Your task to perform on an android device: Do I have any events this weekend? Image 0: 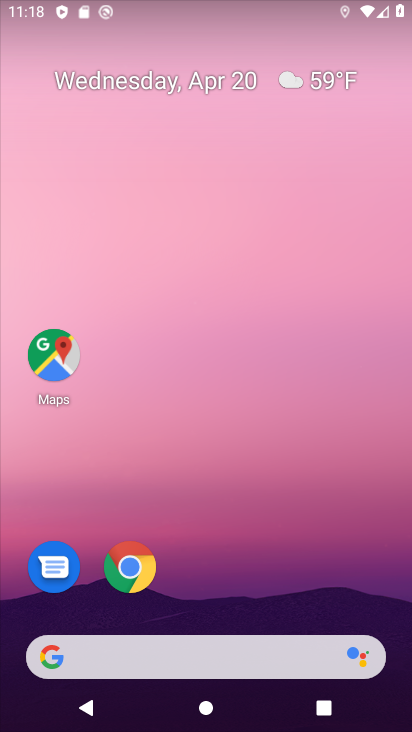
Step 0: drag from (262, 586) to (195, 24)
Your task to perform on an android device: Do I have any events this weekend? Image 1: 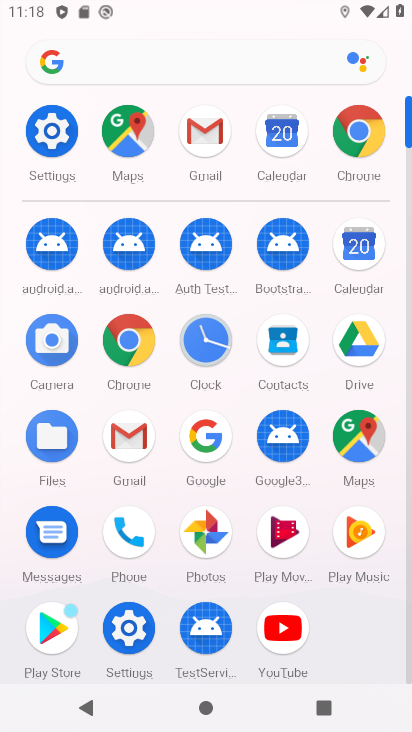
Step 1: click (354, 248)
Your task to perform on an android device: Do I have any events this weekend? Image 2: 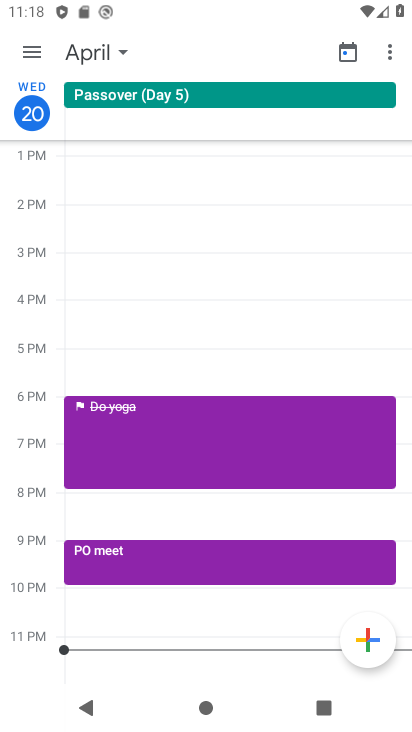
Step 2: click (78, 48)
Your task to perform on an android device: Do I have any events this weekend? Image 3: 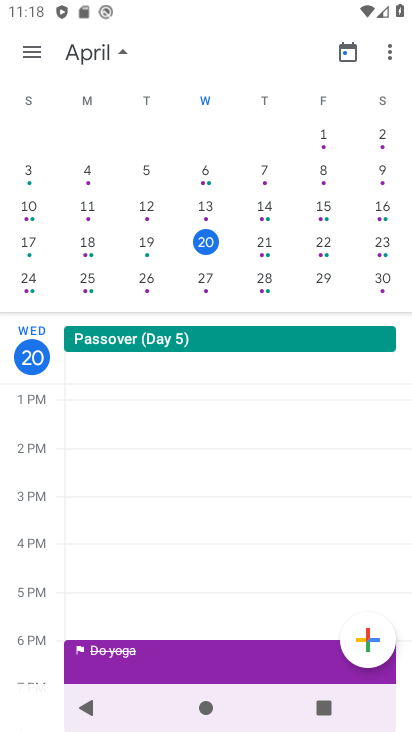
Step 3: click (376, 238)
Your task to perform on an android device: Do I have any events this weekend? Image 4: 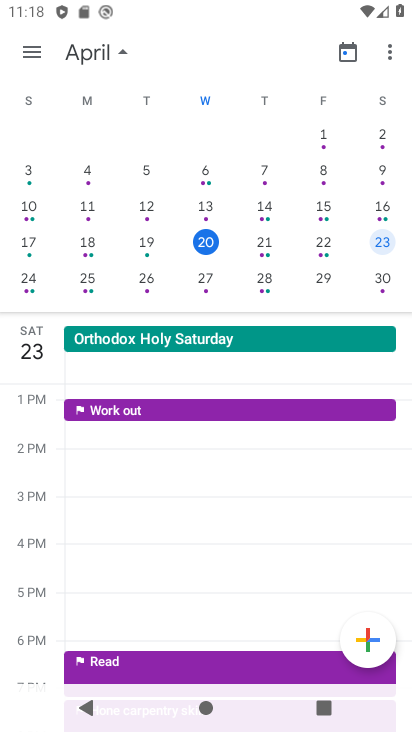
Step 4: click (32, 278)
Your task to perform on an android device: Do I have any events this weekend? Image 5: 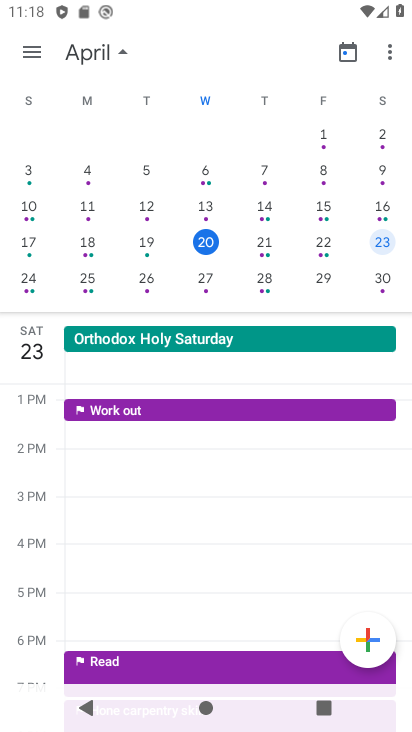
Step 5: click (36, 281)
Your task to perform on an android device: Do I have any events this weekend? Image 6: 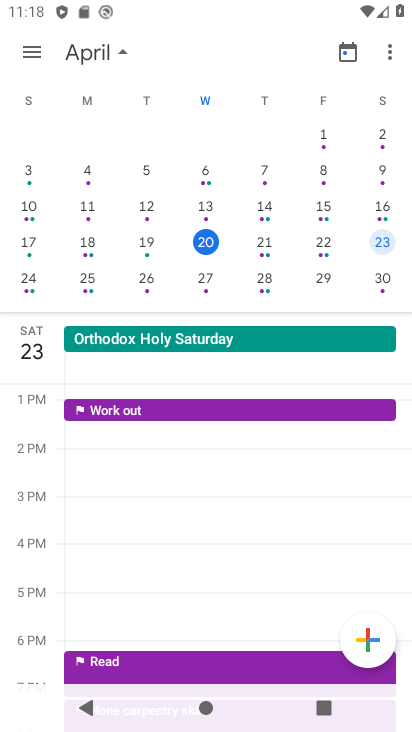
Step 6: click (37, 280)
Your task to perform on an android device: Do I have any events this weekend? Image 7: 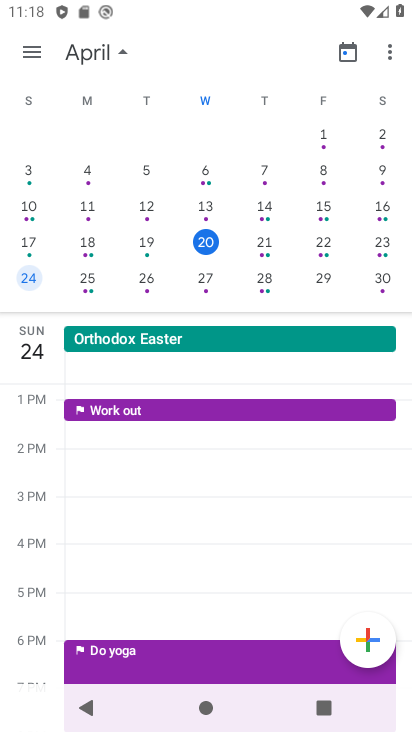
Step 7: click (27, 286)
Your task to perform on an android device: Do I have any events this weekend? Image 8: 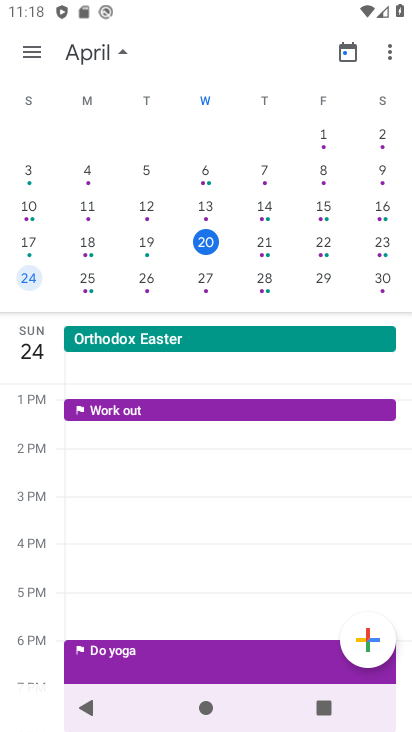
Step 8: task complete